Your task to perform on an android device: clear all cookies in the chrome app Image 0: 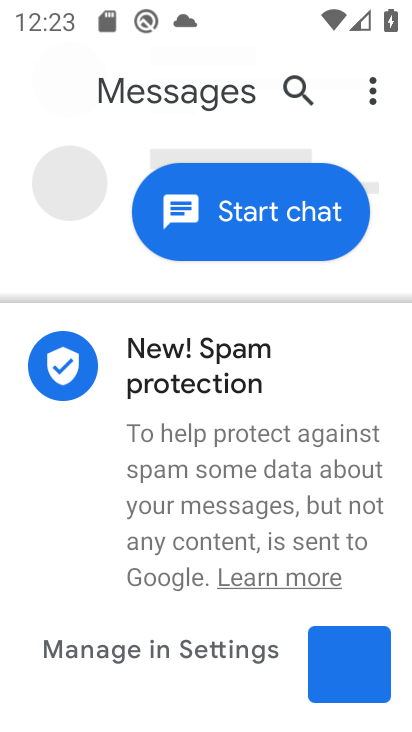
Step 0: press home button
Your task to perform on an android device: clear all cookies in the chrome app Image 1: 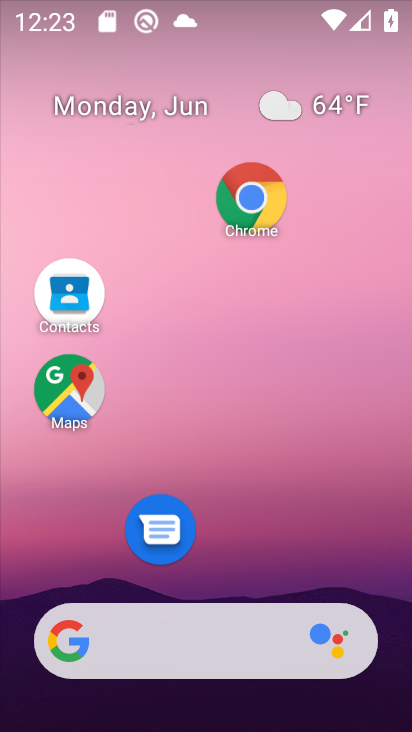
Step 1: click (248, 202)
Your task to perform on an android device: clear all cookies in the chrome app Image 2: 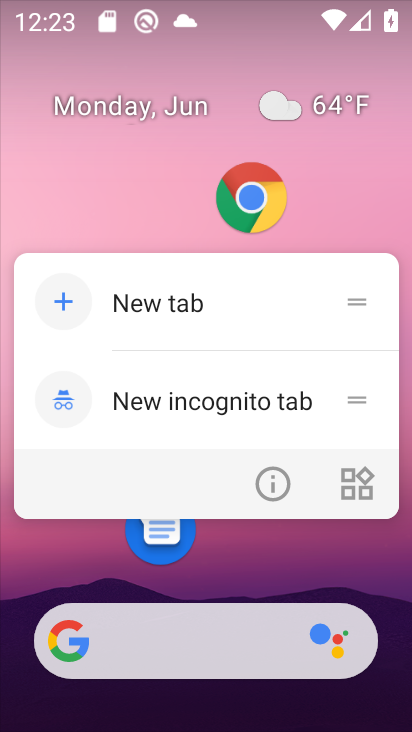
Step 2: click (248, 202)
Your task to perform on an android device: clear all cookies in the chrome app Image 3: 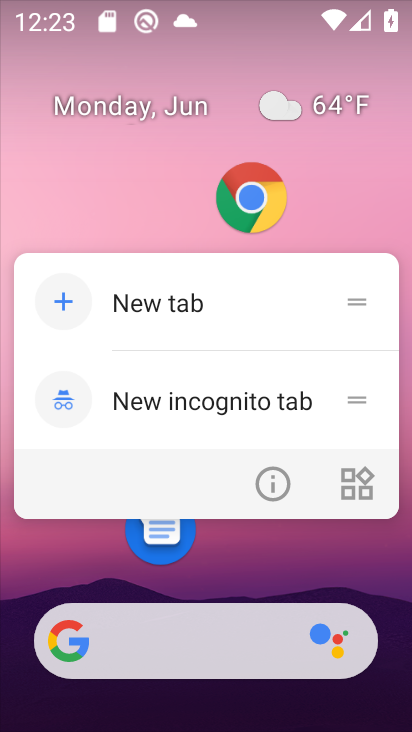
Step 3: click (250, 191)
Your task to perform on an android device: clear all cookies in the chrome app Image 4: 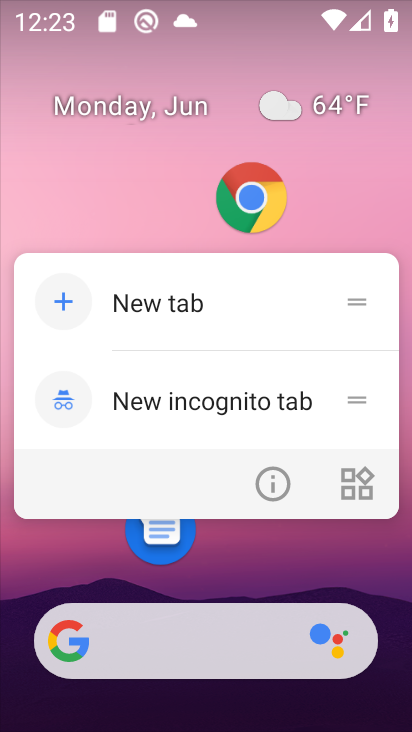
Step 4: click (250, 190)
Your task to perform on an android device: clear all cookies in the chrome app Image 5: 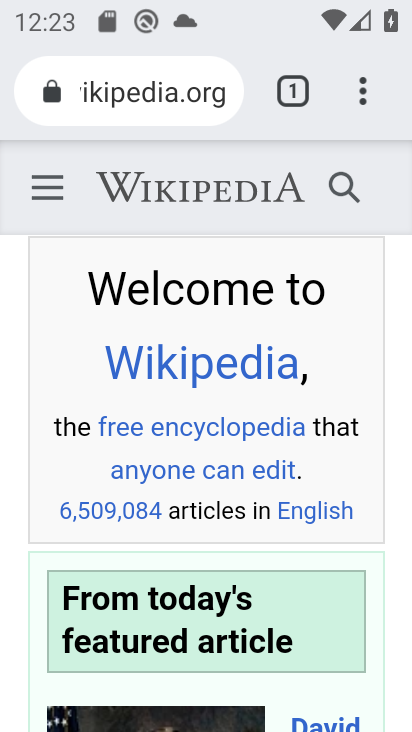
Step 5: click (347, 85)
Your task to perform on an android device: clear all cookies in the chrome app Image 6: 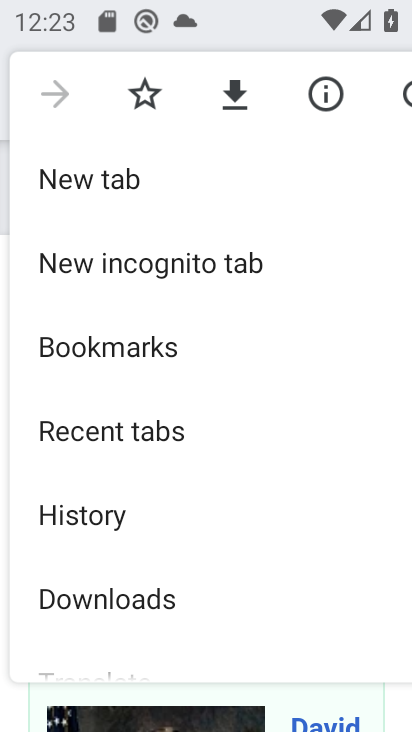
Step 6: click (88, 510)
Your task to perform on an android device: clear all cookies in the chrome app Image 7: 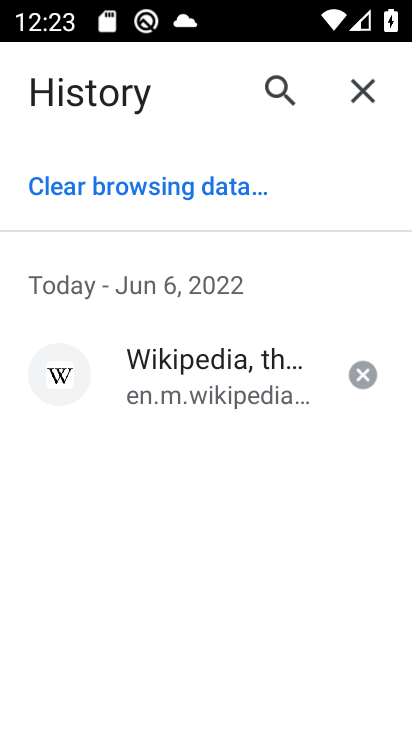
Step 7: click (142, 188)
Your task to perform on an android device: clear all cookies in the chrome app Image 8: 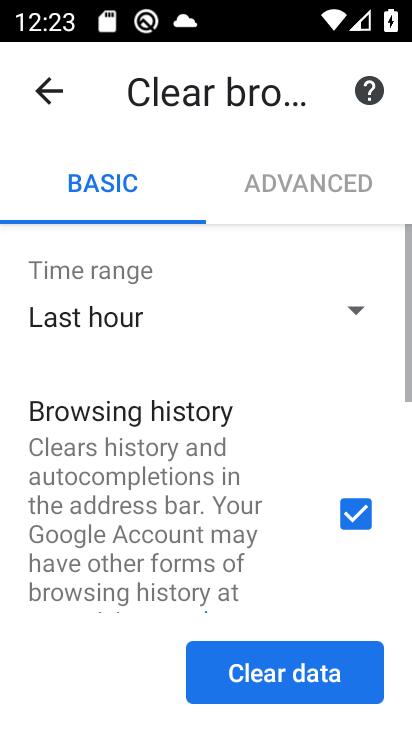
Step 8: click (278, 654)
Your task to perform on an android device: clear all cookies in the chrome app Image 9: 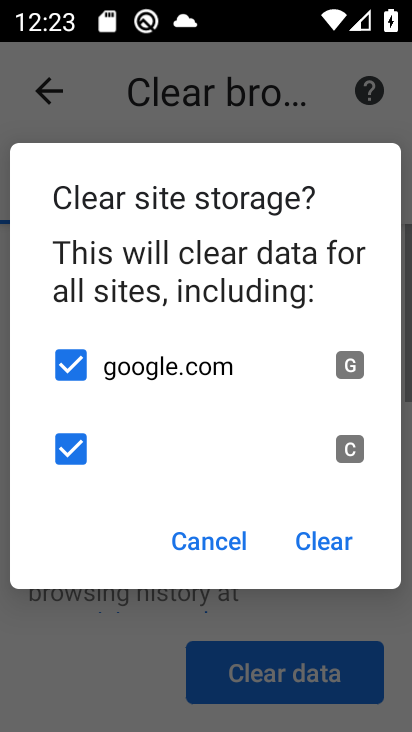
Step 9: drag from (278, 614) to (297, 365)
Your task to perform on an android device: clear all cookies in the chrome app Image 10: 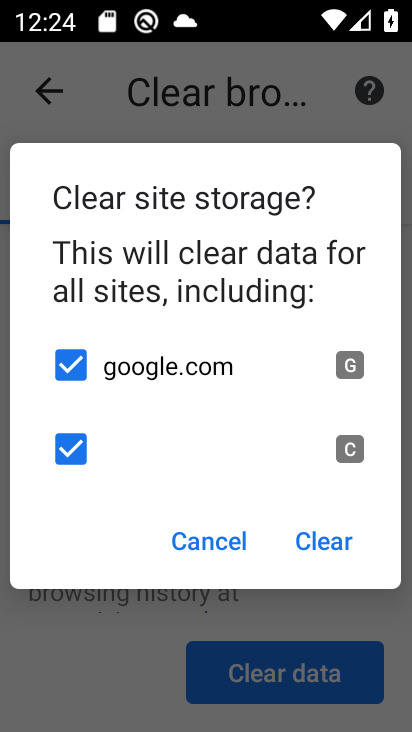
Step 10: click (215, 536)
Your task to perform on an android device: clear all cookies in the chrome app Image 11: 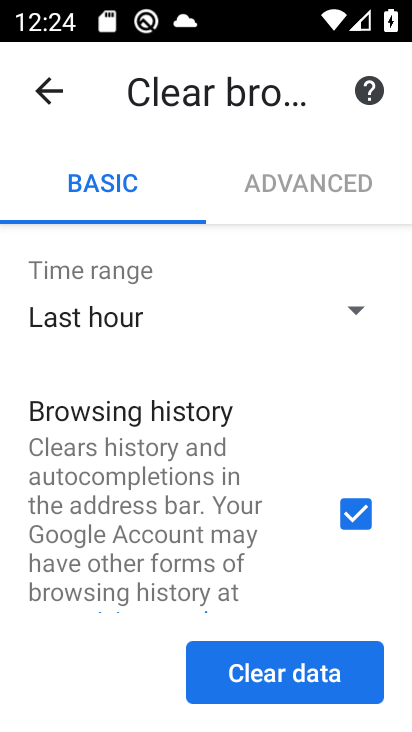
Step 11: drag from (213, 265) to (216, 223)
Your task to perform on an android device: clear all cookies in the chrome app Image 12: 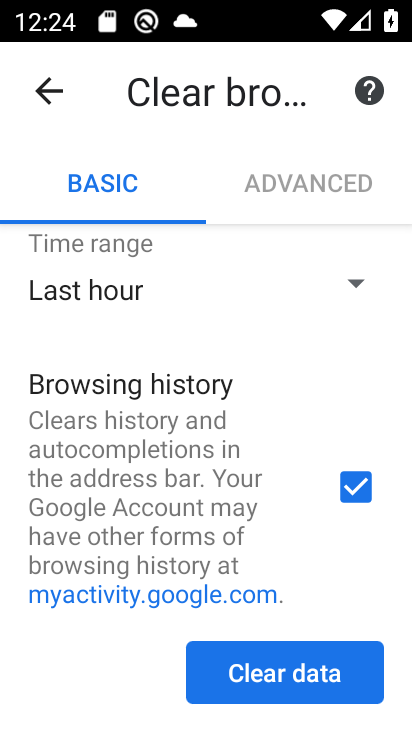
Step 12: click (348, 492)
Your task to perform on an android device: clear all cookies in the chrome app Image 13: 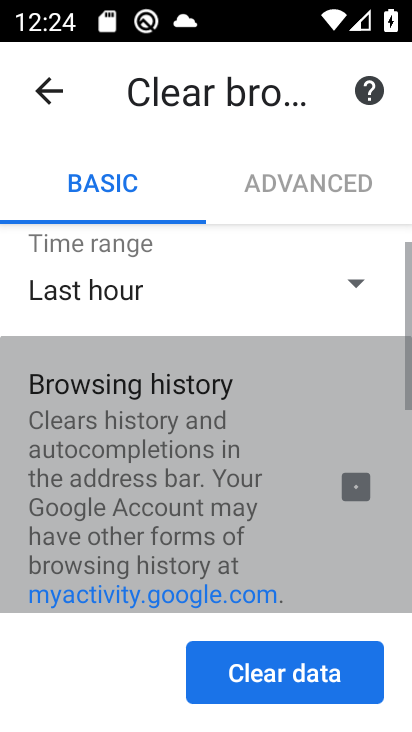
Step 13: drag from (244, 511) to (262, 108)
Your task to perform on an android device: clear all cookies in the chrome app Image 14: 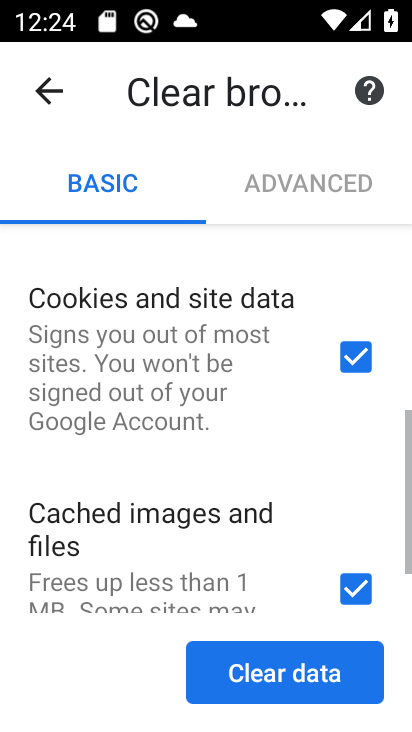
Step 14: drag from (248, 520) to (272, 267)
Your task to perform on an android device: clear all cookies in the chrome app Image 15: 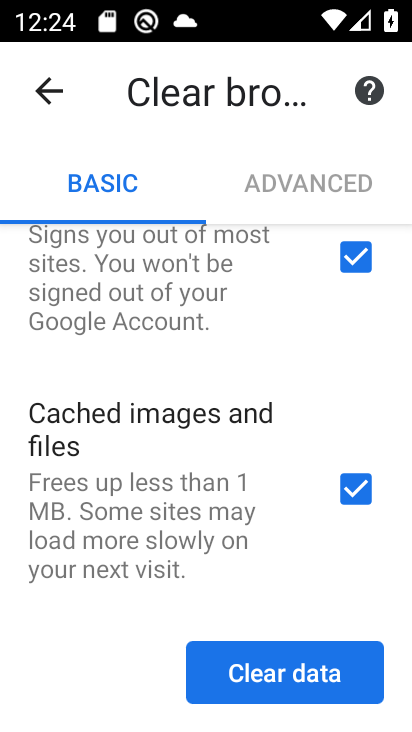
Step 15: click (359, 494)
Your task to perform on an android device: clear all cookies in the chrome app Image 16: 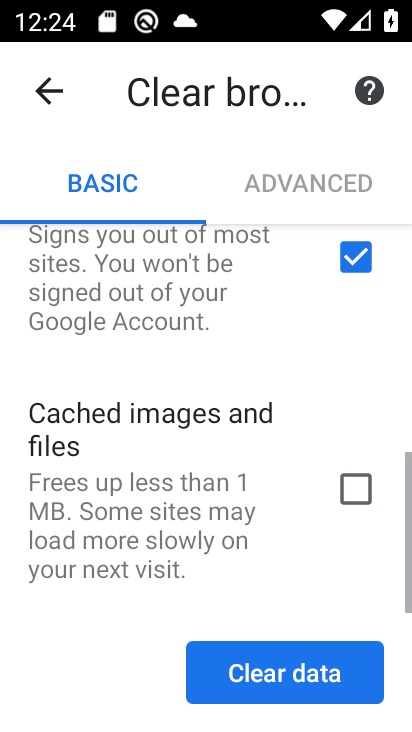
Step 16: click (251, 658)
Your task to perform on an android device: clear all cookies in the chrome app Image 17: 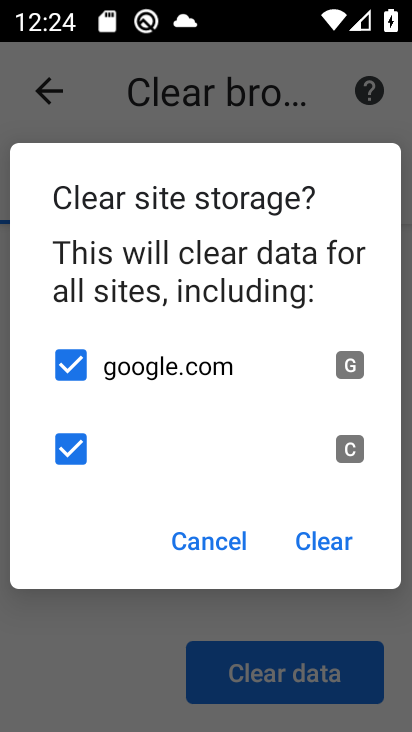
Step 17: click (299, 543)
Your task to perform on an android device: clear all cookies in the chrome app Image 18: 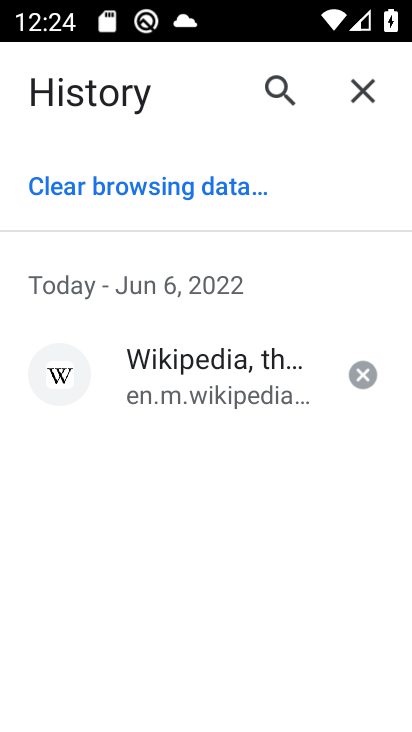
Step 18: task complete